Your task to perform on an android device: Open Reddit.com Image 0: 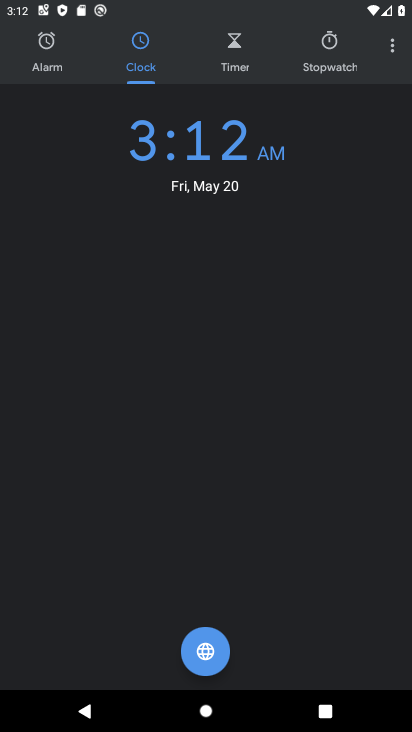
Step 0: press home button
Your task to perform on an android device: Open Reddit.com Image 1: 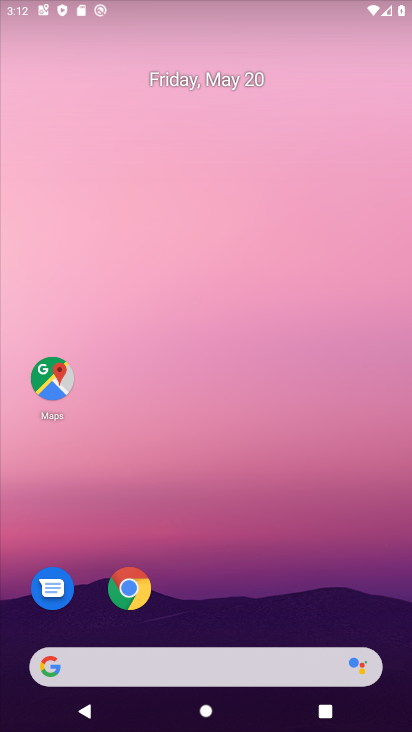
Step 1: drag from (198, 601) to (225, 235)
Your task to perform on an android device: Open Reddit.com Image 2: 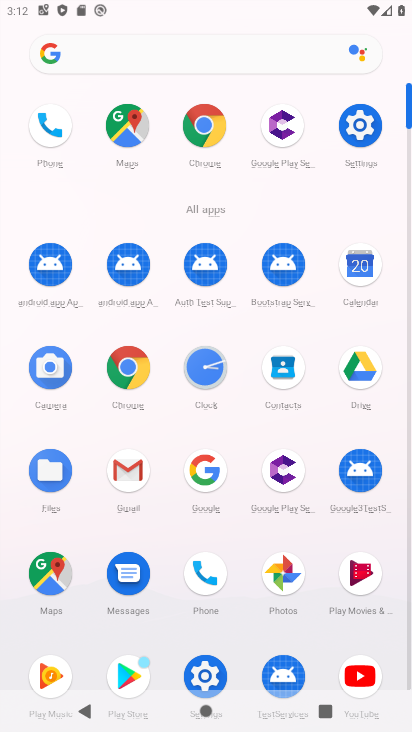
Step 2: click (185, 461)
Your task to perform on an android device: Open Reddit.com Image 3: 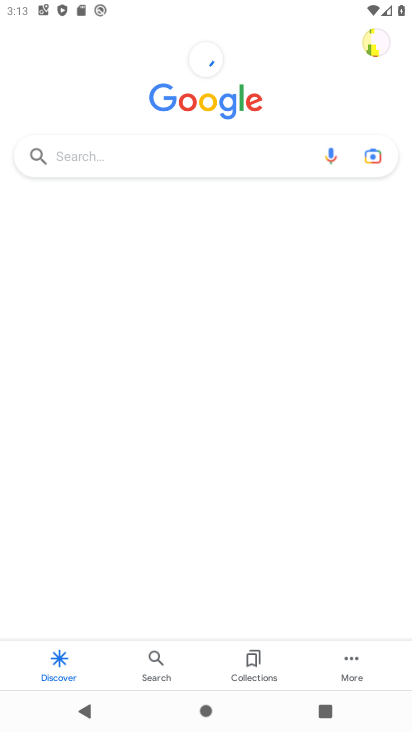
Step 3: click (159, 157)
Your task to perform on an android device: Open Reddit.com Image 4: 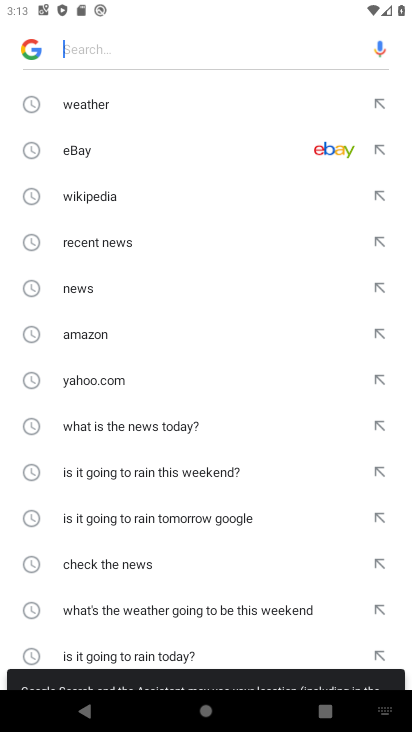
Step 4: drag from (168, 593) to (133, 237)
Your task to perform on an android device: Open Reddit.com Image 5: 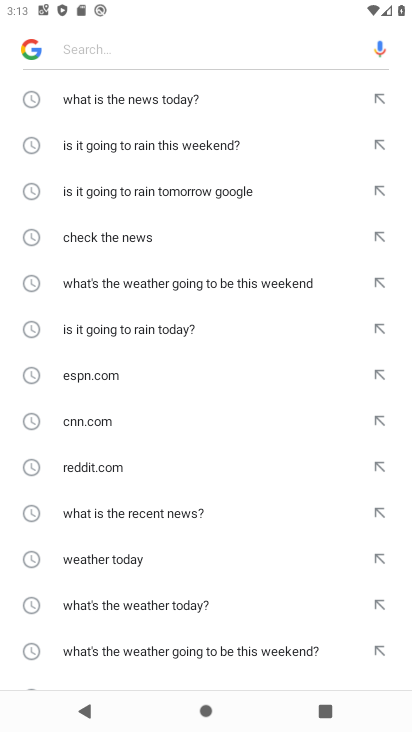
Step 5: click (122, 466)
Your task to perform on an android device: Open Reddit.com Image 6: 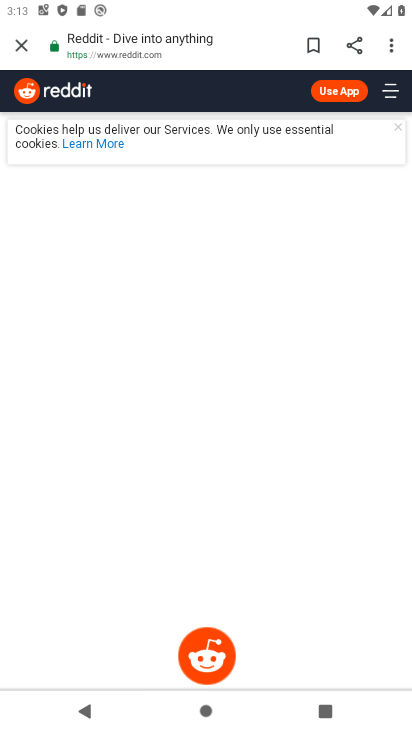
Step 6: task complete